Your task to perform on an android device: change alarm snooze length Image 0: 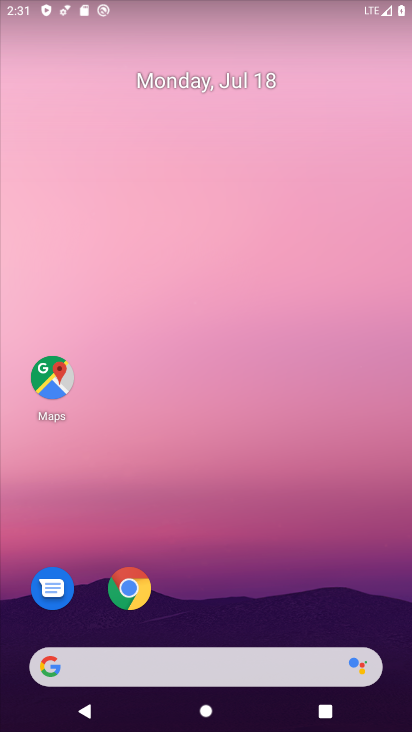
Step 0: drag from (234, 596) to (292, 75)
Your task to perform on an android device: change alarm snooze length Image 1: 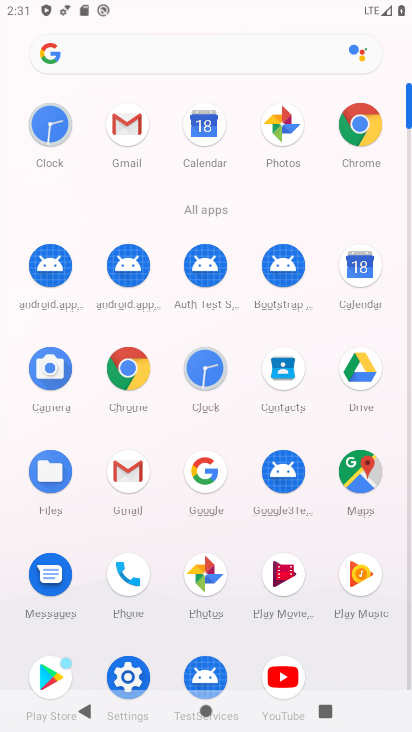
Step 1: click (208, 379)
Your task to perform on an android device: change alarm snooze length Image 2: 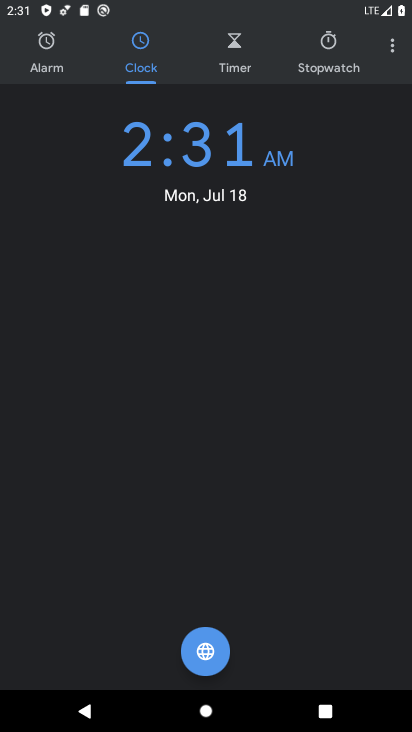
Step 2: click (393, 39)
Your task to perform on an android device: change alarm snooze length Image 3: 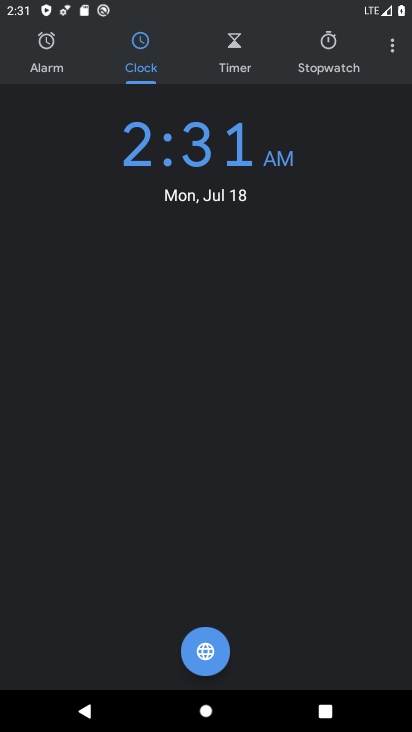
Step 3: click (392, 45)
Your task to perform on an android device: change alarm snooze length Image 4: 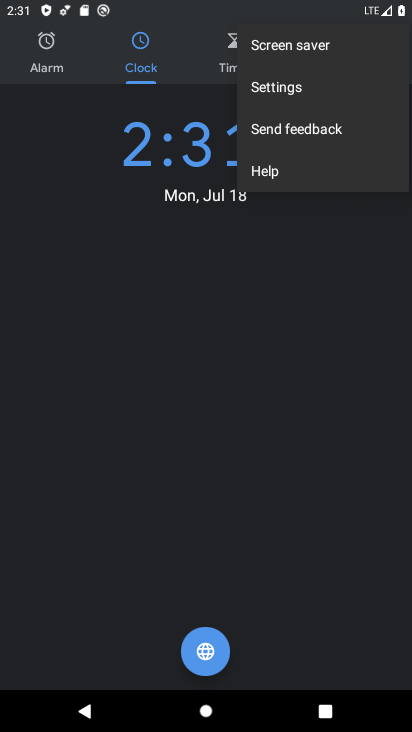
Step 4: click (288, 88)
Your task to perform on an android device: change alarm snooze length Image 5: 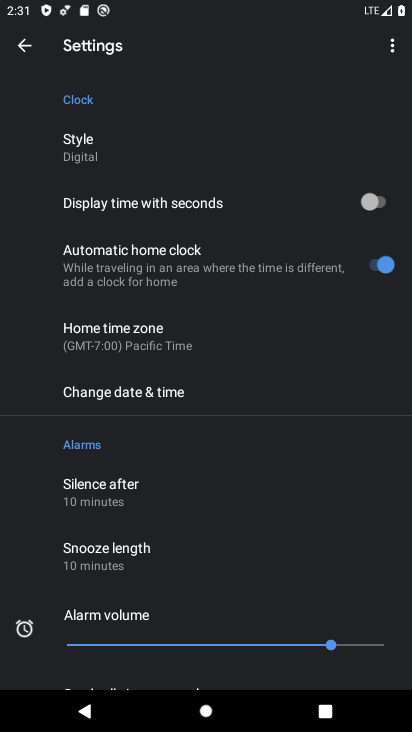
Step 5: click (140, 536)
Your task to perform on an android device: change alarm snooze length Image 6: 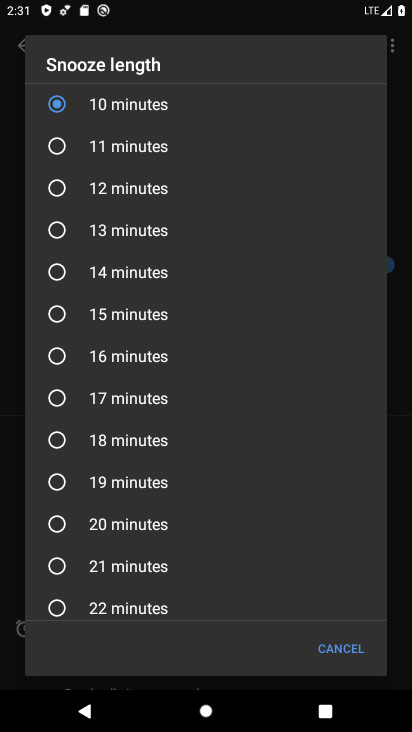
Step 6: click (74, 141)
Your task to perform on an android device: change alarm snooze length Image 7: 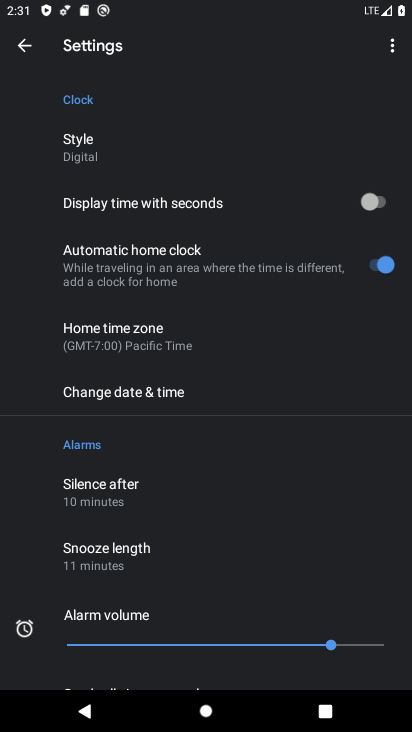
Step 7: task complete